Your task to perform on an android device: change timer sound Image 0: 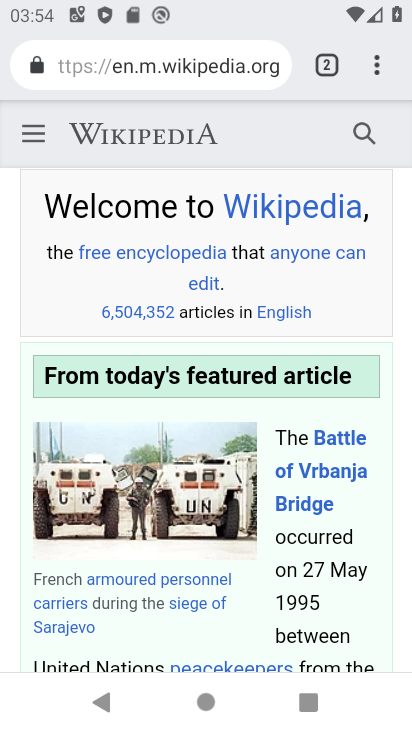
Step 0: press home button
Your task to perform on an android device: change timer sound Image 1: 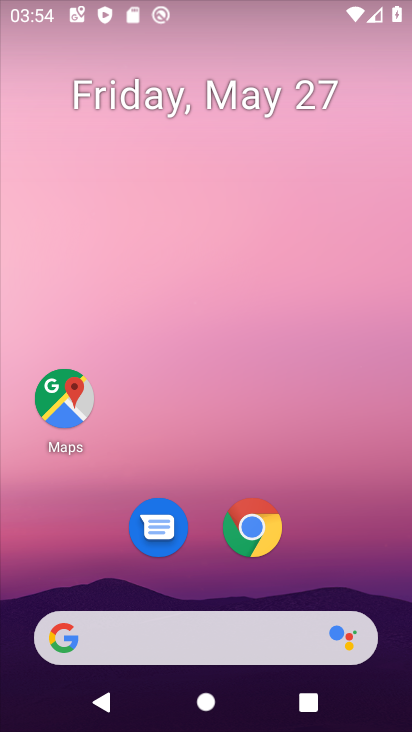
Step 1: drag from (306, 549) to (335, 217)
Your task to perform on an android device: change timer sound Image 2: 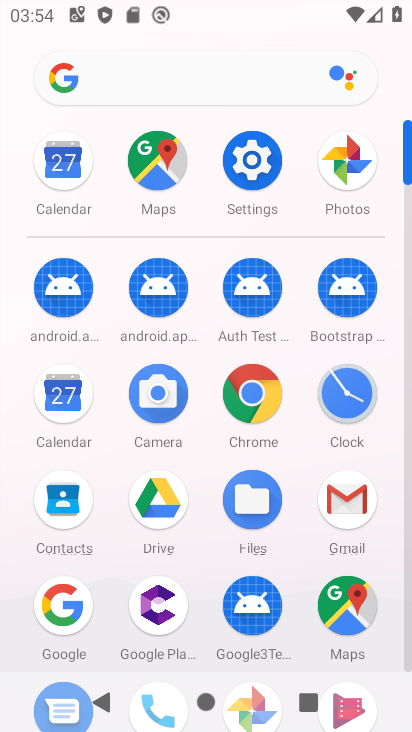
Step 2: click (311, 398)
Your task to perform on an android device: change timer sound Image 3: 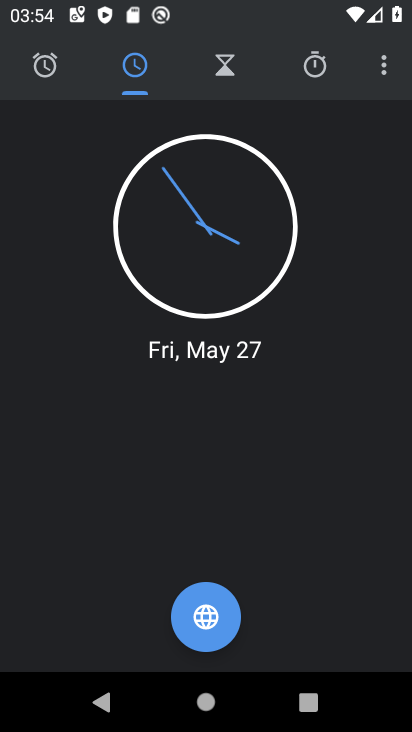
Step 3: click (378, 87)
Your task to perform on an android device: change timer sound Image 4: 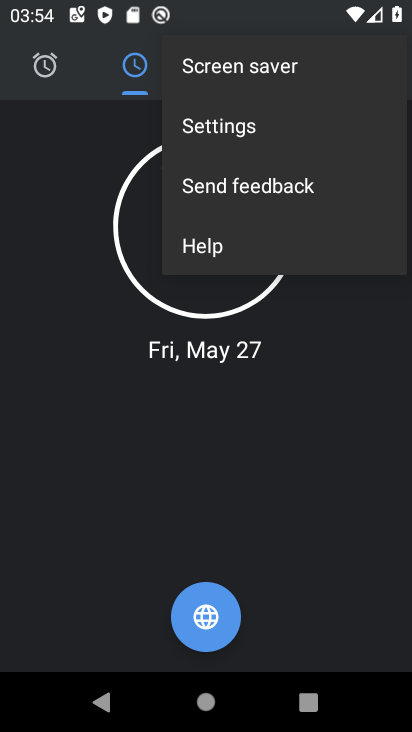
Step 4: click (281, 137)
Your task to perform on an android device: change timer sound Image 5: 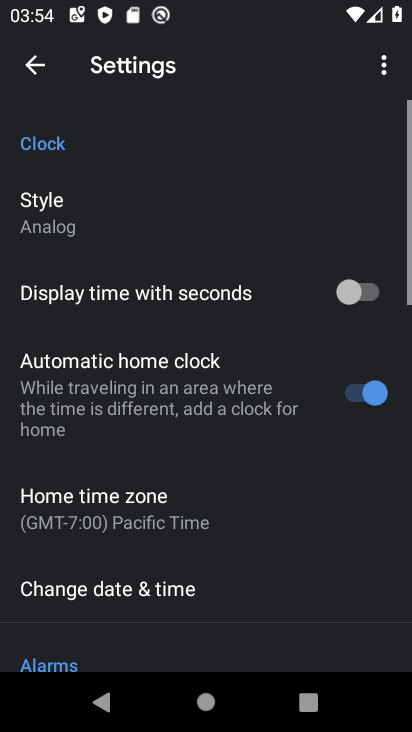
Step 5: drag from (335, 617) to (357, 94)
Your task to perform on an android device: change timer sound Image 6: 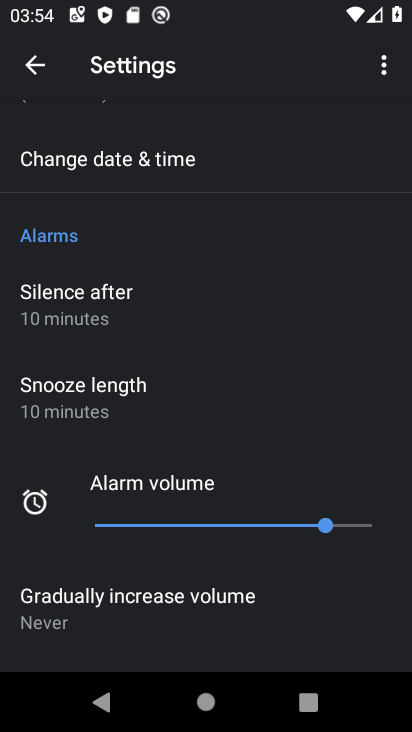
Step 6: drag from (341, 613) to (360, 72)
Your task to perform on an android device: change timer sound Image 7: 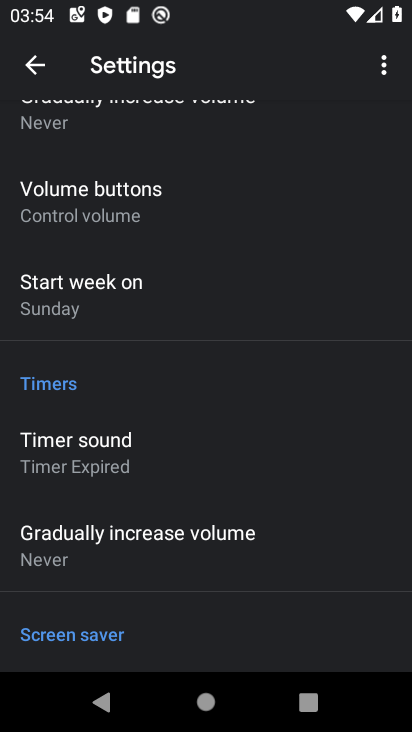
Step 7: click (185, 436)
Your task to perform on an android device: change timer sound Image 8: 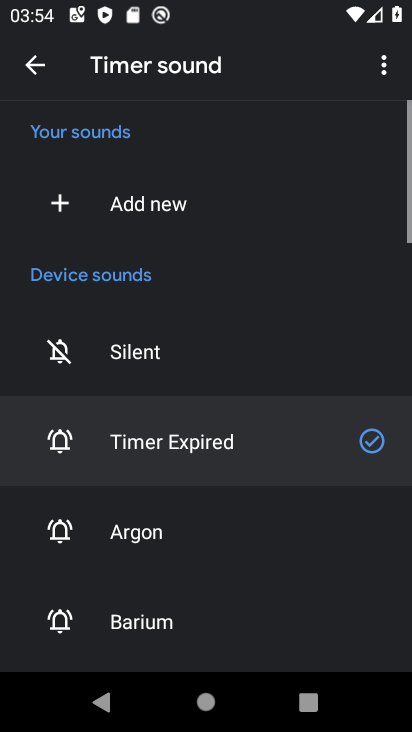
Step 8: click (124, 525)
Your task to perform on an android device: change timer sound Image 9: 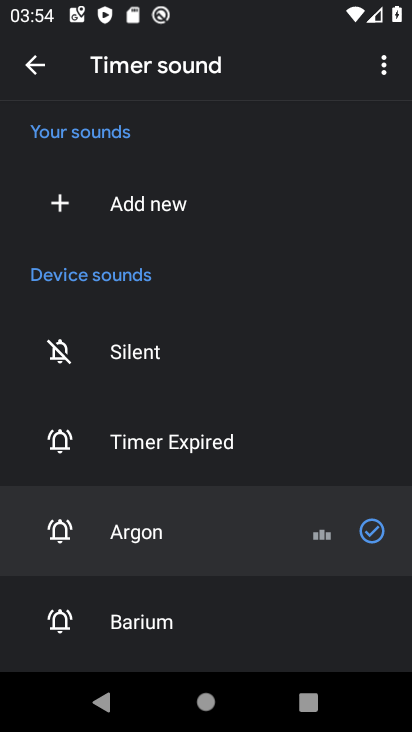
Step 9: task complete